Your task to perform on an android device: Open Google Image 0: 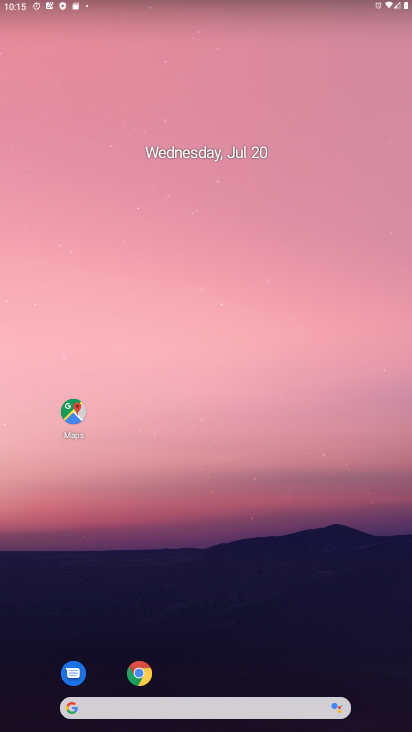
Step 0: drag from (246, 727) to (240, 131)
Your task to perform on an android device: Open Google Image 1: 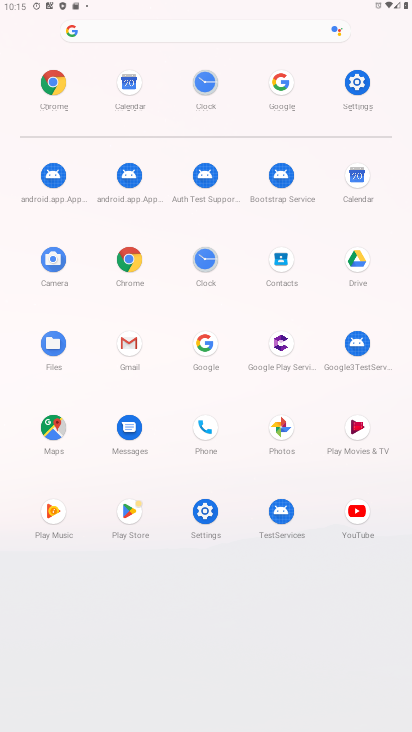
Step 1: click (204, 343)
Your task to perform on an android device: Open Google Image 2: 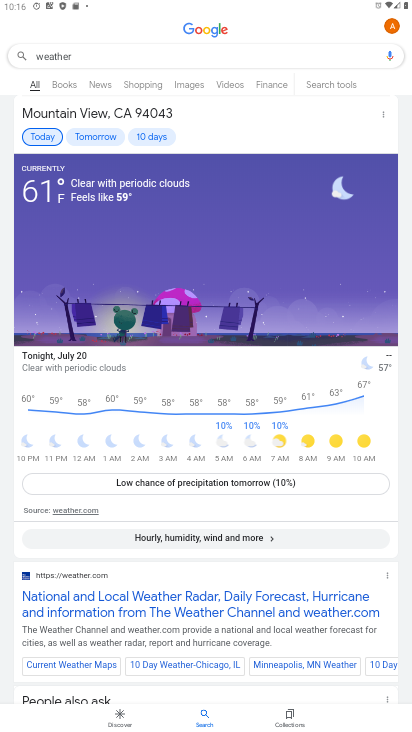
Step 2: task complete